Your task to perform on an android device: visit the assistant section in the google photos Image 0: 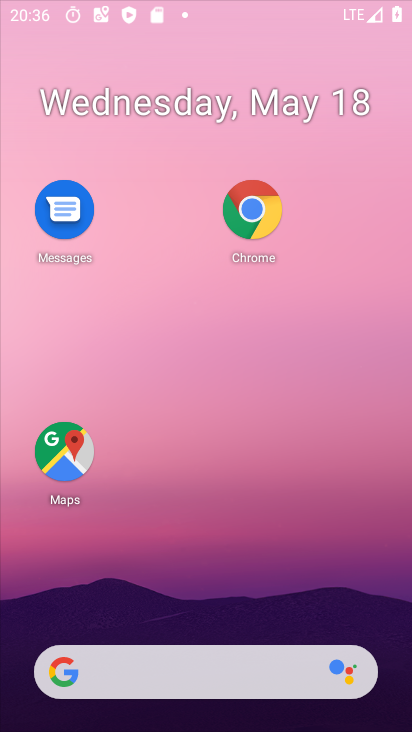
Step 0: drag from (171, 608) to (214, 2)
Your task to perform on an android device: visit the assistant section in the google photos Image 1: 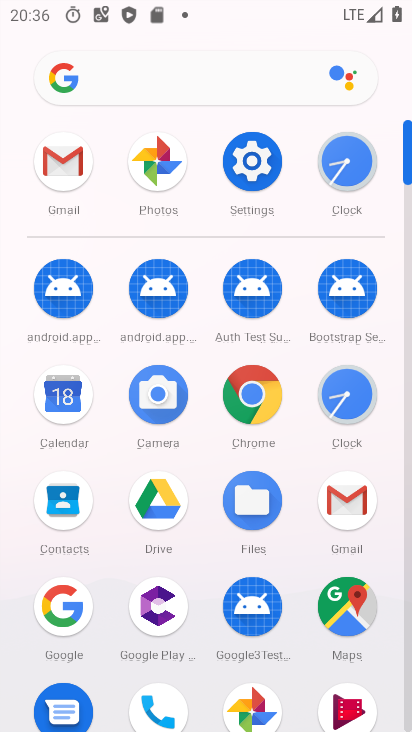
Step 1: click (143, 228)
Your task to perform on an android device: visit the assistant section in the google photos Image 2: 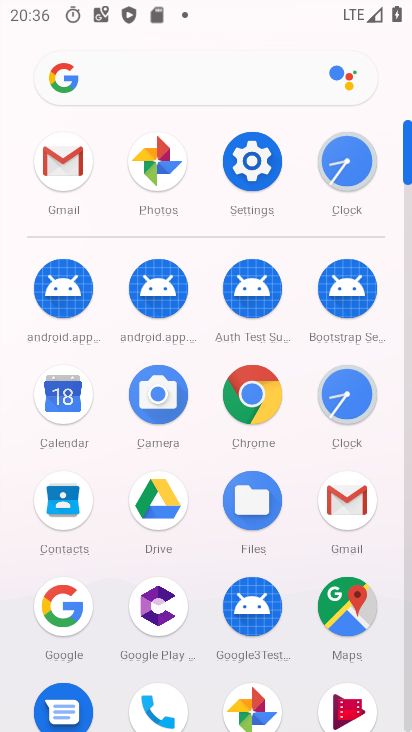
Step 2: click (148, 188)
Your task to perform on an android device: visit the assistant section in the google photos Image 3: 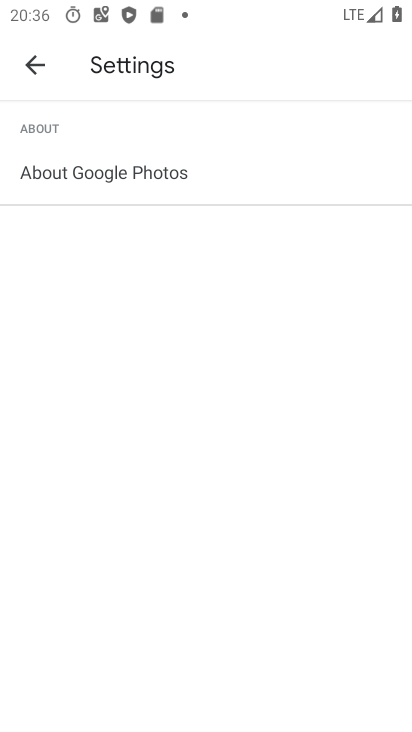
Step 3: click (39, 77)
Your task to perform on an android device: visit the assistant section in the google photos Image 4: 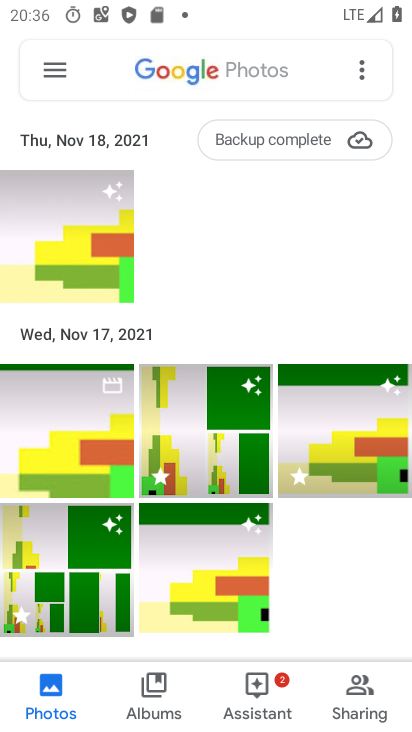
Step 4: click (259, 722)
Your task to perform on an android device: visit the assistant section in the google photos Image 5: 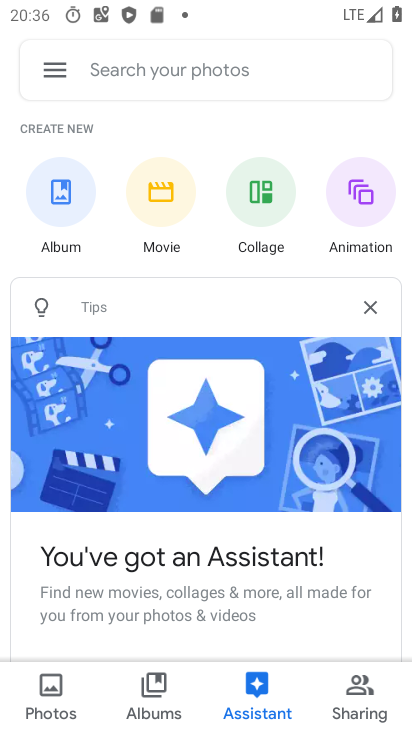
Step 5: task complete